Your task to perform on an android device: turn notification dots on Image 0: 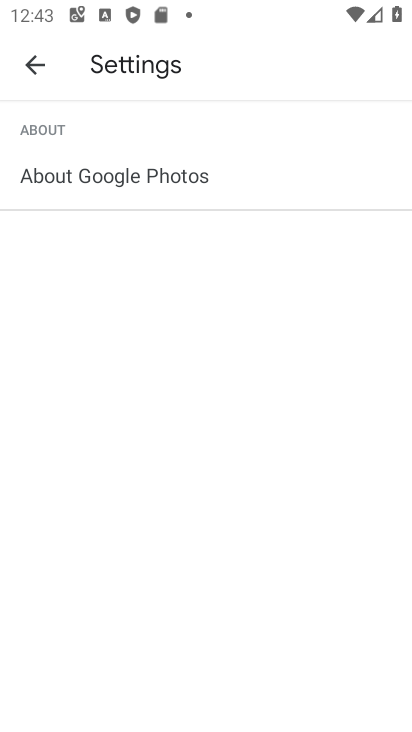
Step 0: click (41, 74)
Your task to perform on an android device: turn notification dots on Image 1: 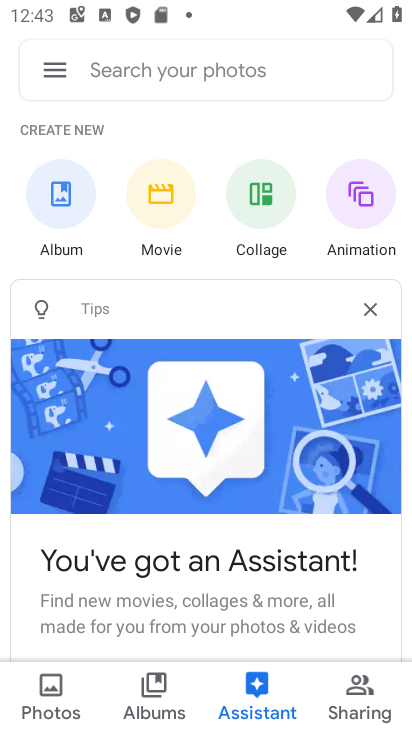
Step 1: press home button
Your task to perform on an android device: turn notification dots on Image 2: 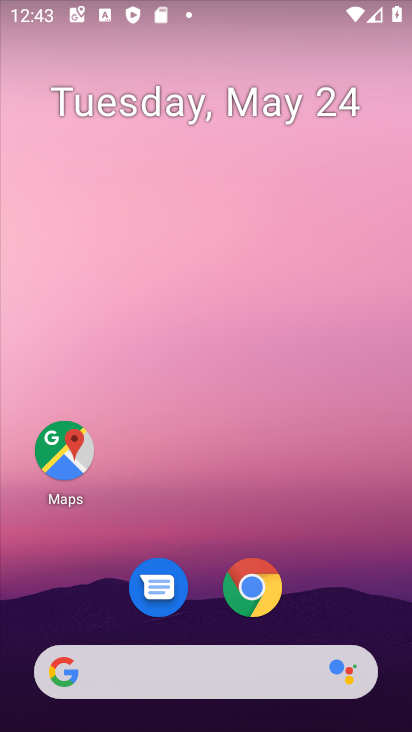
Step 2: drag from (194, 694) to (201, 71)
Your task to perform on an android device: turn notification dots on Image 3: 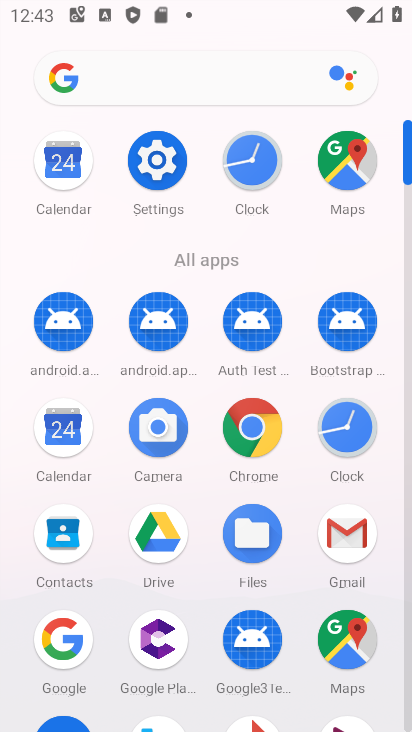
Step 3: click (157, 172)
Your task to perform on an android device: turn notification dots on Image 4: 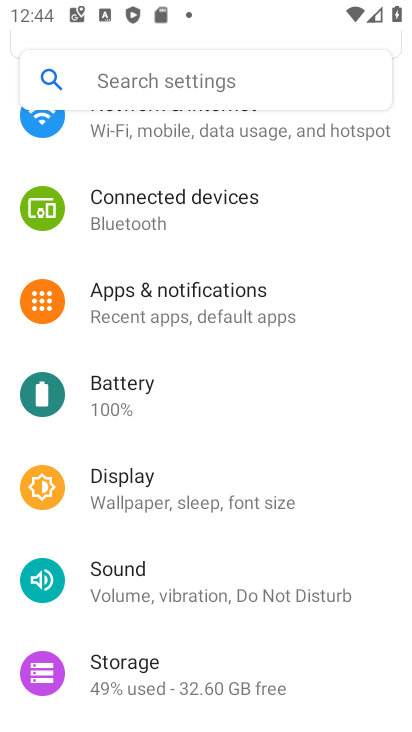
Step 4: click (257, 276)
Your task to perform on an android device: turn notification dots on Image 5: 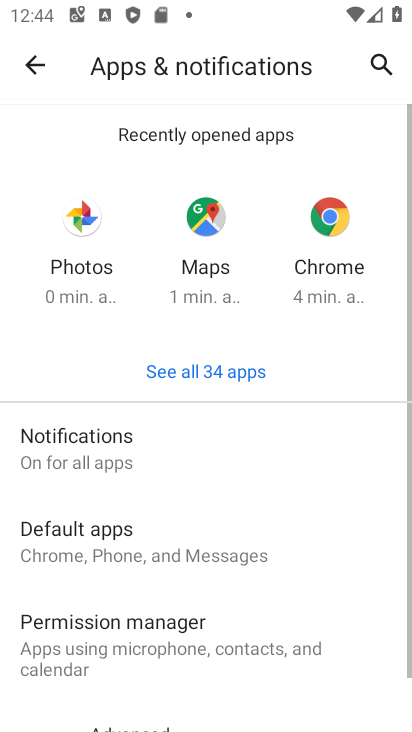
Step 5: drag from (240, 659) to (216, 238)
Your task to perform on an android device: turn notification dots on Image 6: 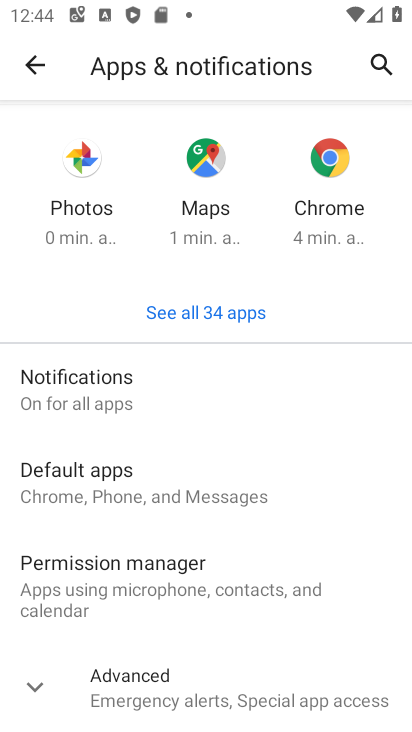
Step 6: click (93, 382)
Your task to perform on an android device: turn notification dots on Image 7: 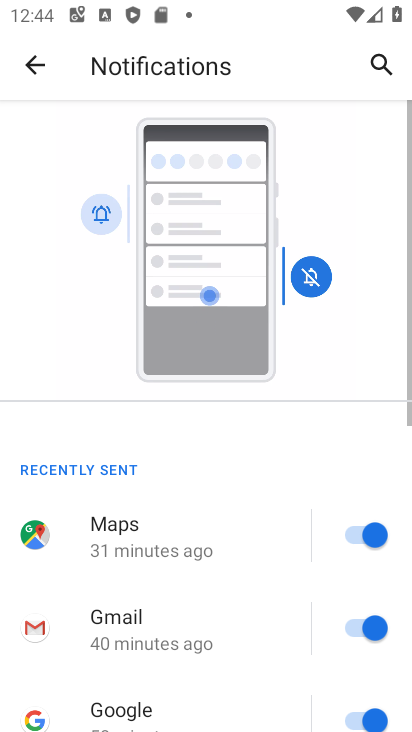
Step 7: drag from (270, 591) to (271, 96)
Your task to perform on an android device: turn notification dots on Image 8: 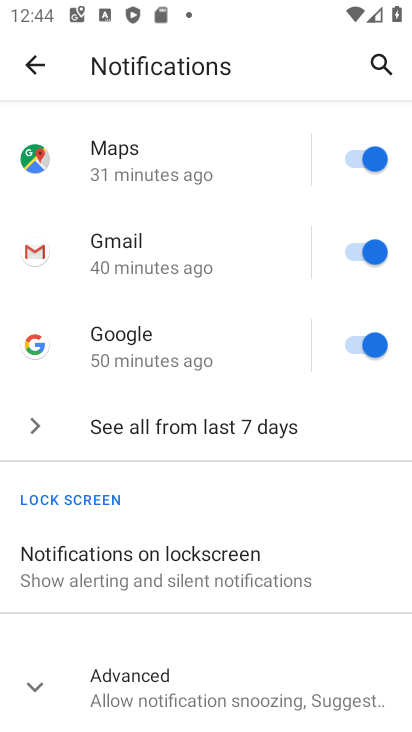
Step 8: click (239, 713)
Your task to perform on an android device: turn notification dots on Image 9: 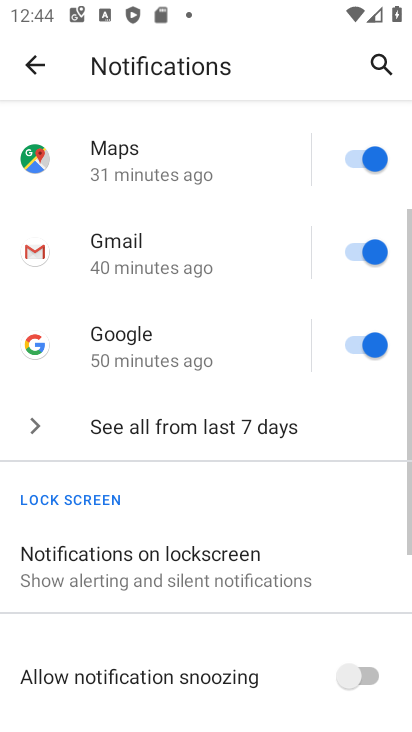
Step 9: task complete